Your task to perform on an android device: open a bookmark in the chrome app Image 0: 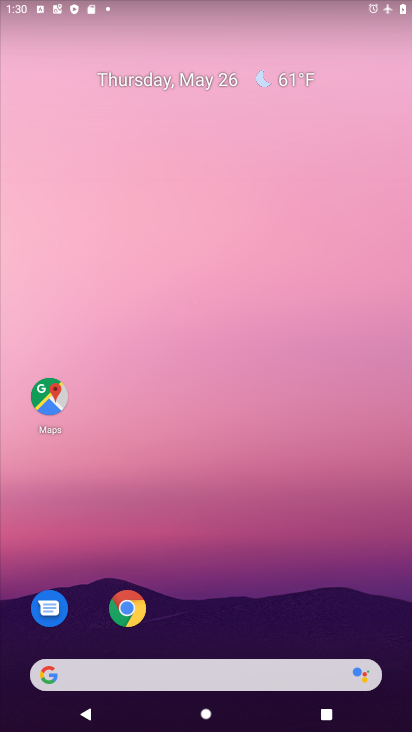
Step 0: click (129, 610)
Your task to perform on an android device: open a bookmark in the chrome app Image 1: 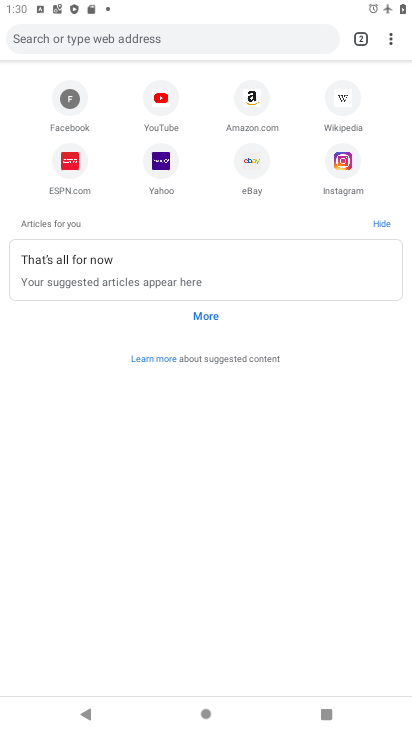
Step 1: click (389, 42)
Your task to perform on an android device: open a bookmark in the chrome app Image 2: 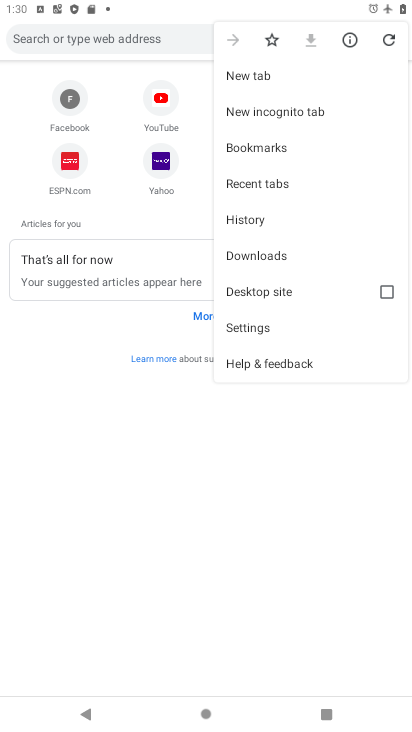
Step 2: click (265, 147)
Your task to perform on an android device: open a bookmark in the chrome app Image 3: 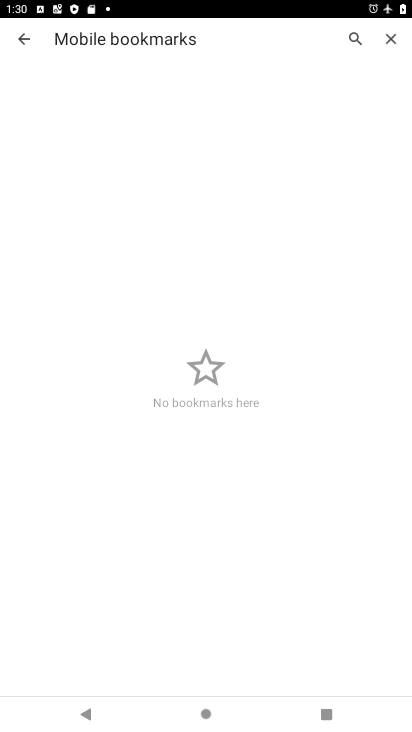
Step 3: task complete